Your task to perform on an android device: find photos in the google photos app Image 0: 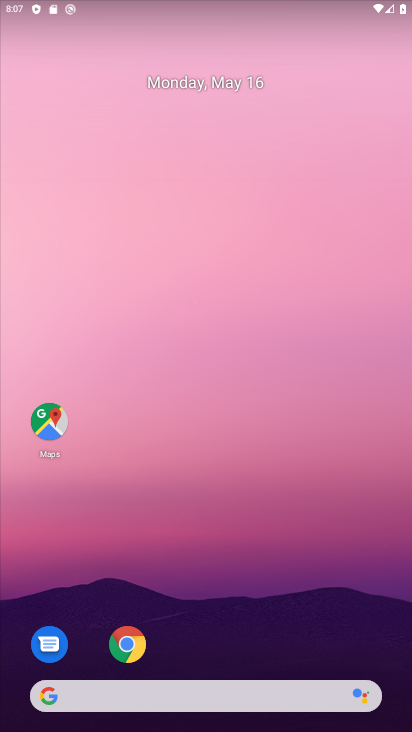
Step 0: drag from (169, 716) to (143, 165)
Your task to perform on an android device: find photos in the google photos app Image 1: 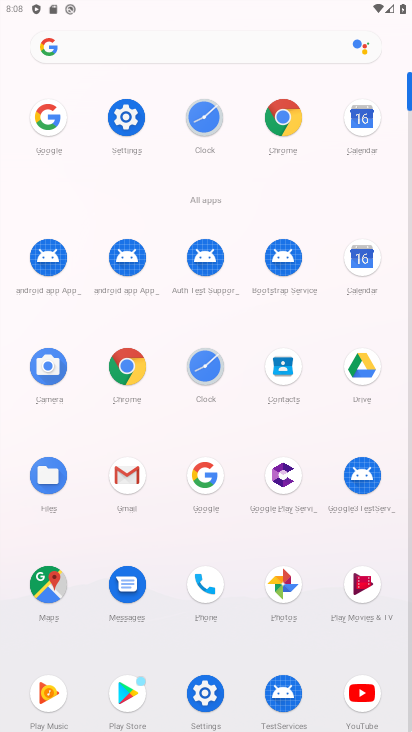
Step 1: click (298, 589)
Your task to perform on an android device: find photos in the google photos app Image 2: 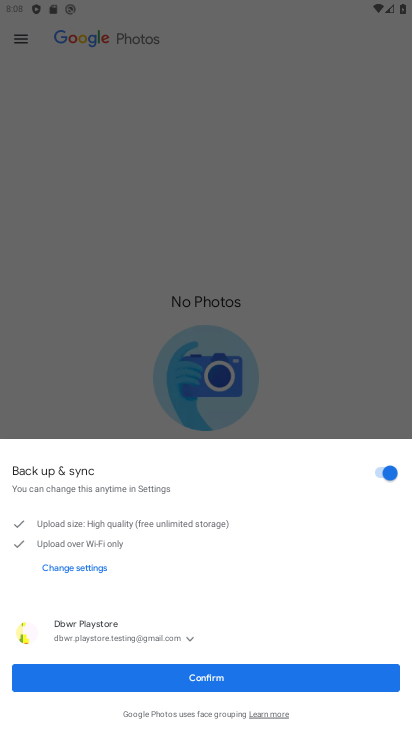
Step 2: click (255, 678)
Your task to perform on an android device: find photos in the google photos app Image 3: 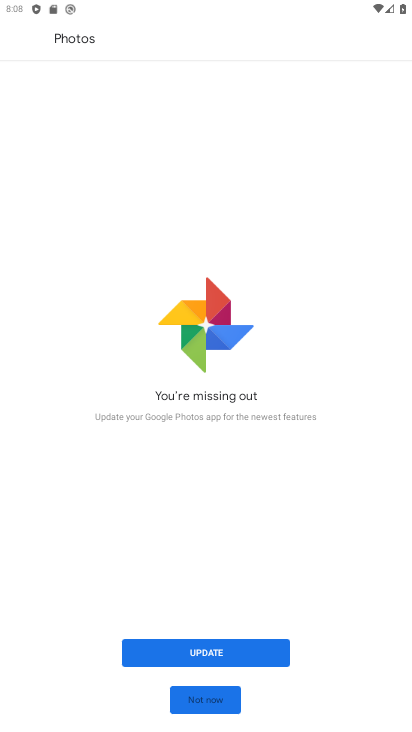
Step 3: click (205, 660)
Your task to perform on an android device: find photos in the google photos app Image 4: 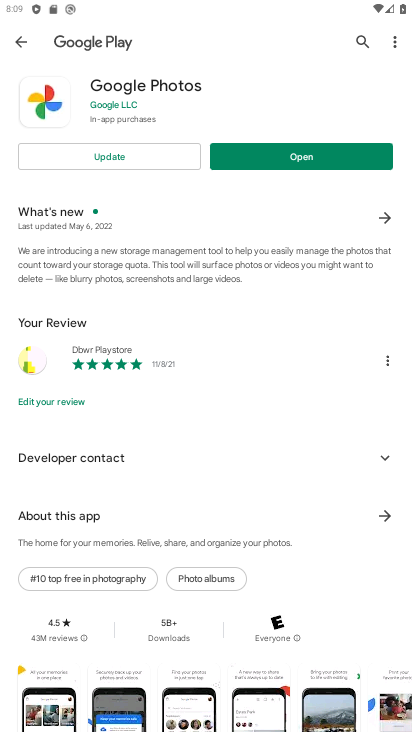
Step 4: click (153, 152)
Your task to perform on an android device: find photos in the google photos app Image 5: 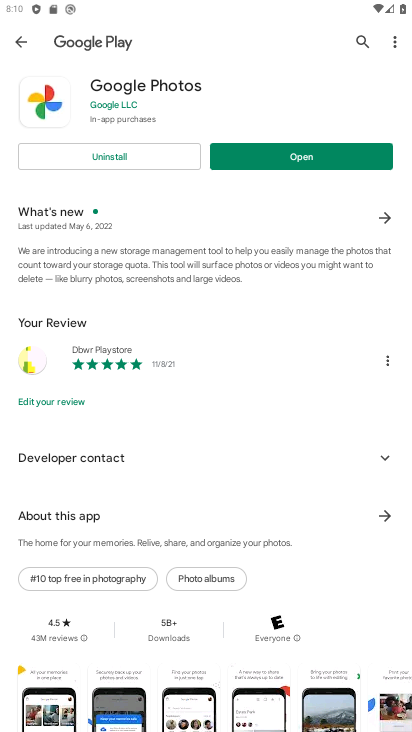
Step 5: click (338, 156)
Your task to perform on an android device: find photos in the google photos app Image 6: 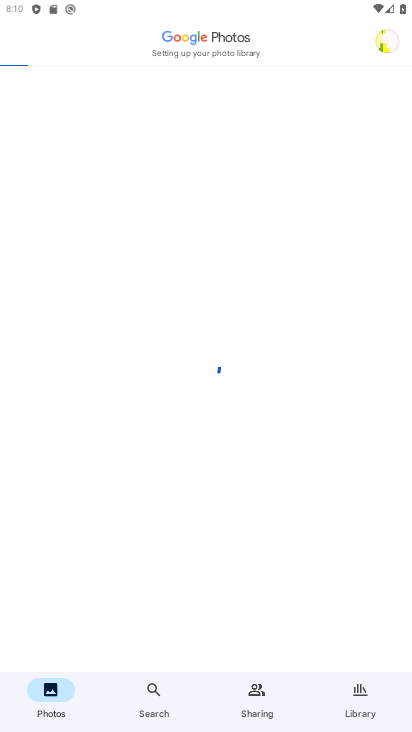
Step 6: task complete